Your task to perform on an android device: View the shopping cart on amazon. Add logitech g903 to the cart on amazon, then select checkout. Image 0: 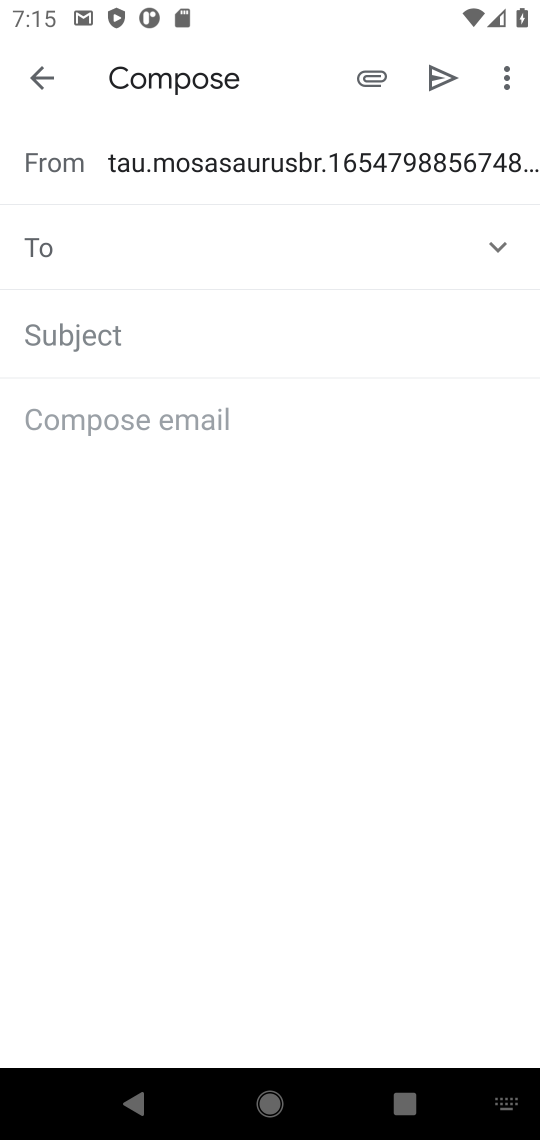
Step 0: press home button
Your task to perform on an android device: View the shopping cart on amazon. Add logitech g903 to the cart on amazon, then select checkout. Image 1: 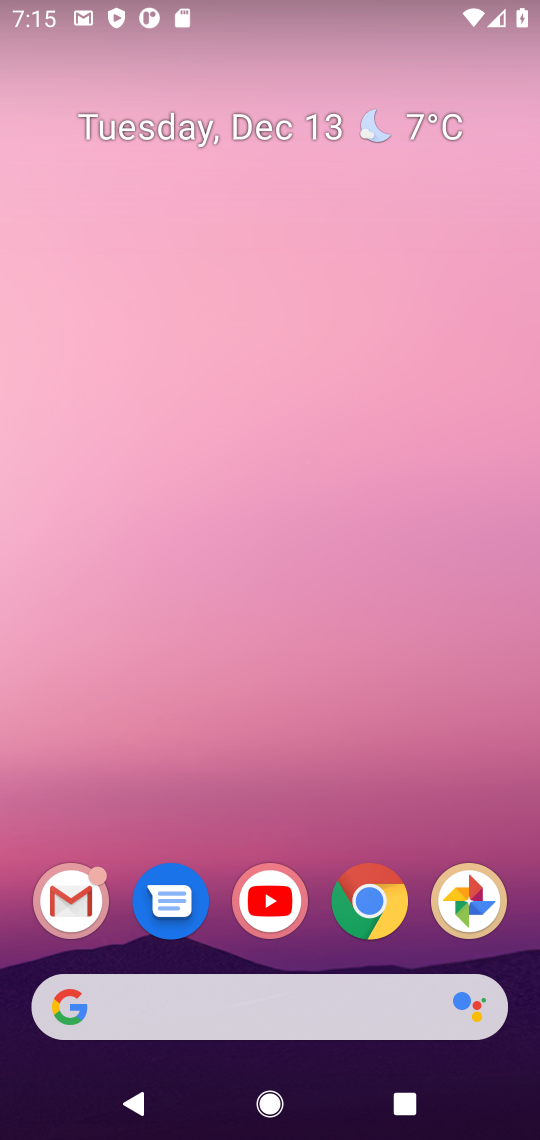
Step 1: click (357, 894)
Your task to perform on an android device: View the shopping cart on amazon. Add logitech g903 to the cart on amazon, then select checkout. Image 2: 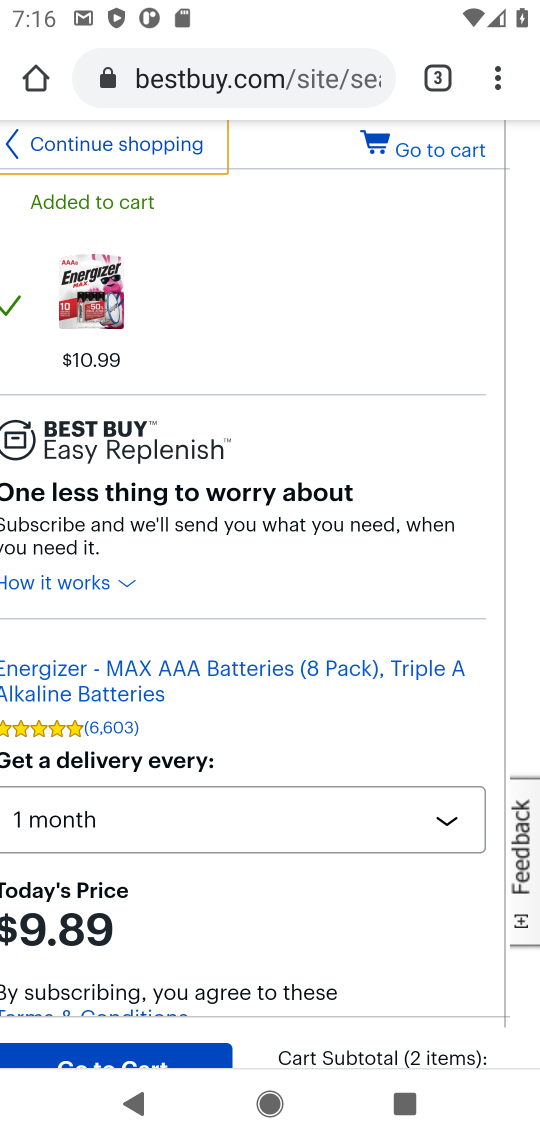
Step 2: click (433, 82)
Your task to perform on an android device: View the shopping cart on amazon. Add logitech g903 to the cart on amazon, then select checkout. Image 3: 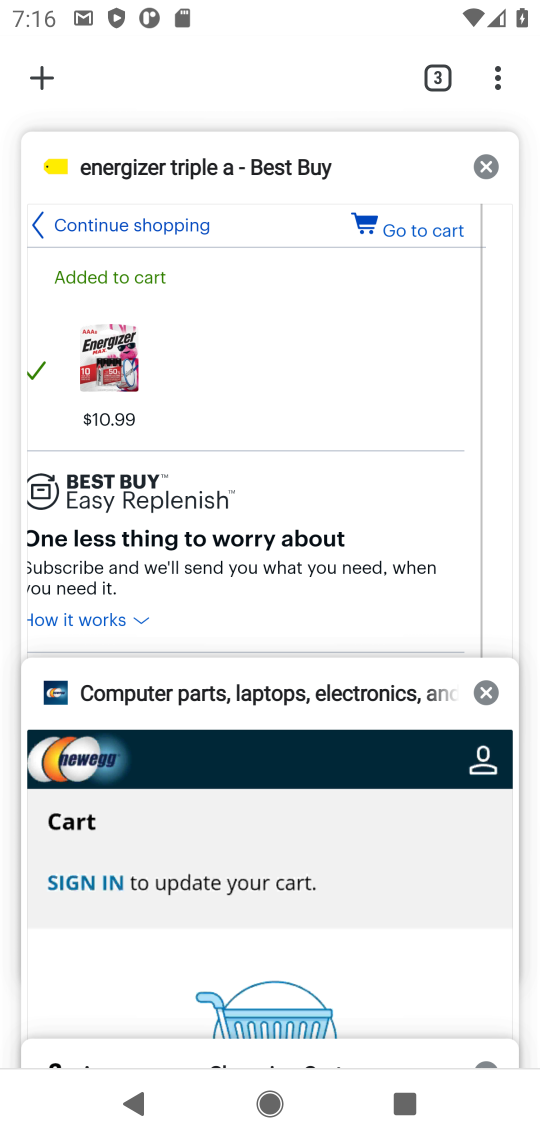
Step 3: click (36, 72)
Your task to perform on an android device: View the shopping cart on amazon. Add logitech g903 to the cart on amazon, then select checkout. Image 4: 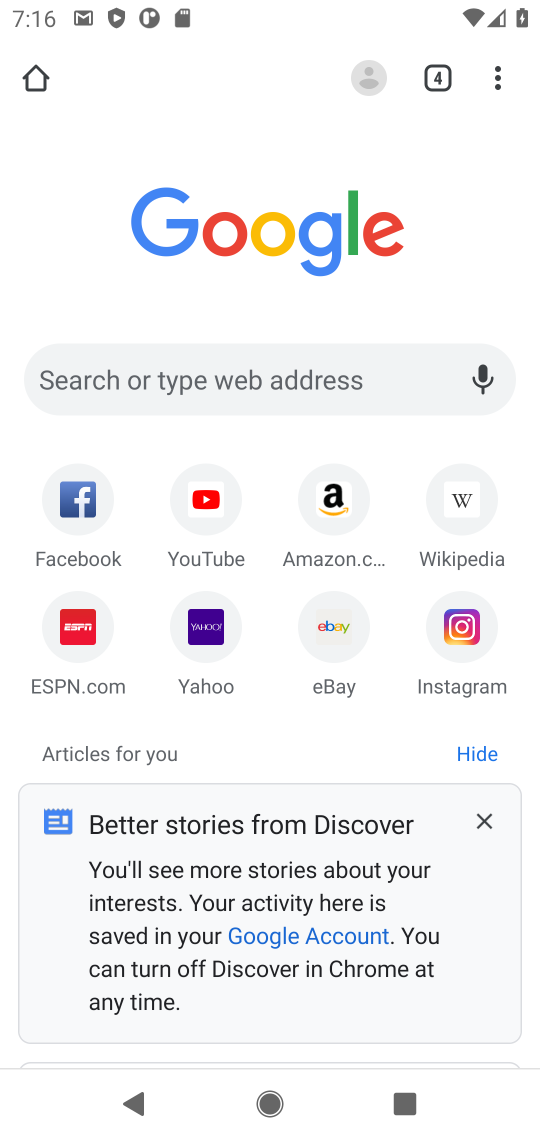
Step 4: click (443, 78)
Your task to perform on an android device: View the shopping cart on amazon. Add logitech g903 to the cart on amazon, then select checkout. Image 5: 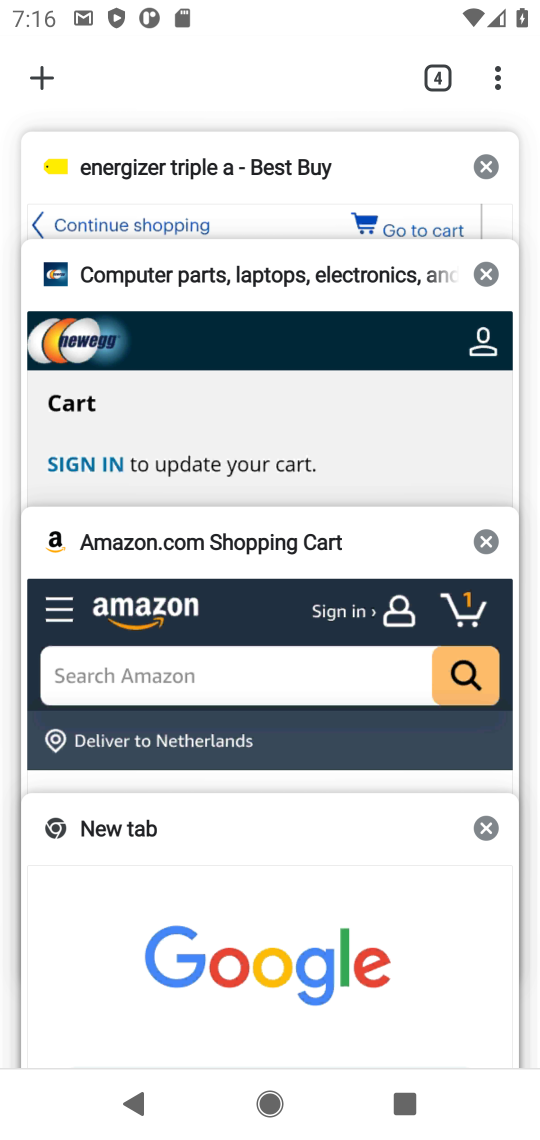
Step 5: click (292, 568)
Your task to perform on an android device: View the shopping cart on amazon. Add logitech g903 to the cart on amazon, then select checkout. Image 6: 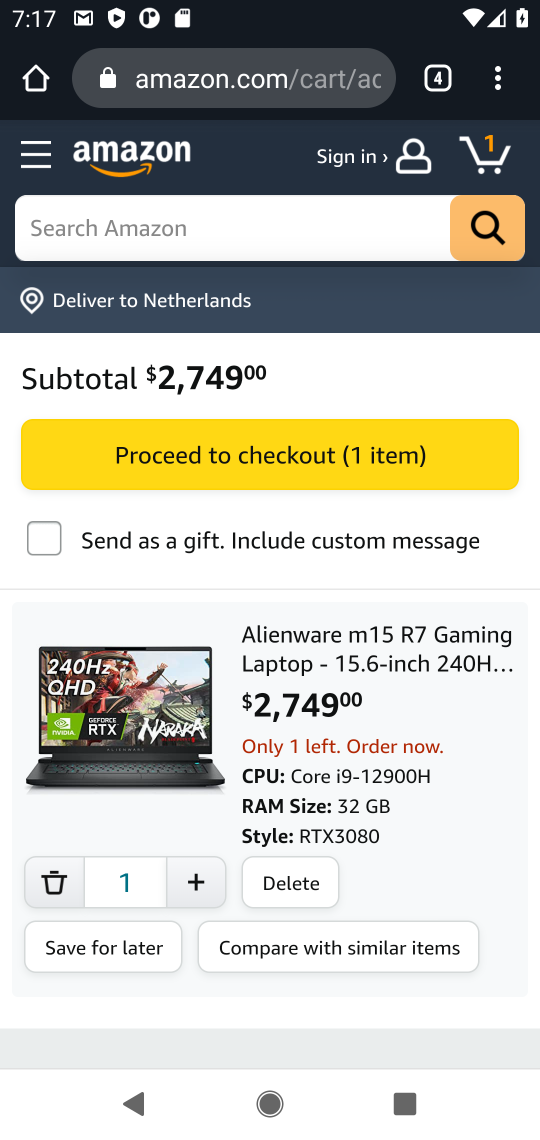
Step 6: click (154, 223)
Your task to perform on an android device: View the shopping cart on amazon. Add logitech g903 to the cart on amazon, then select checkout. Image 7: 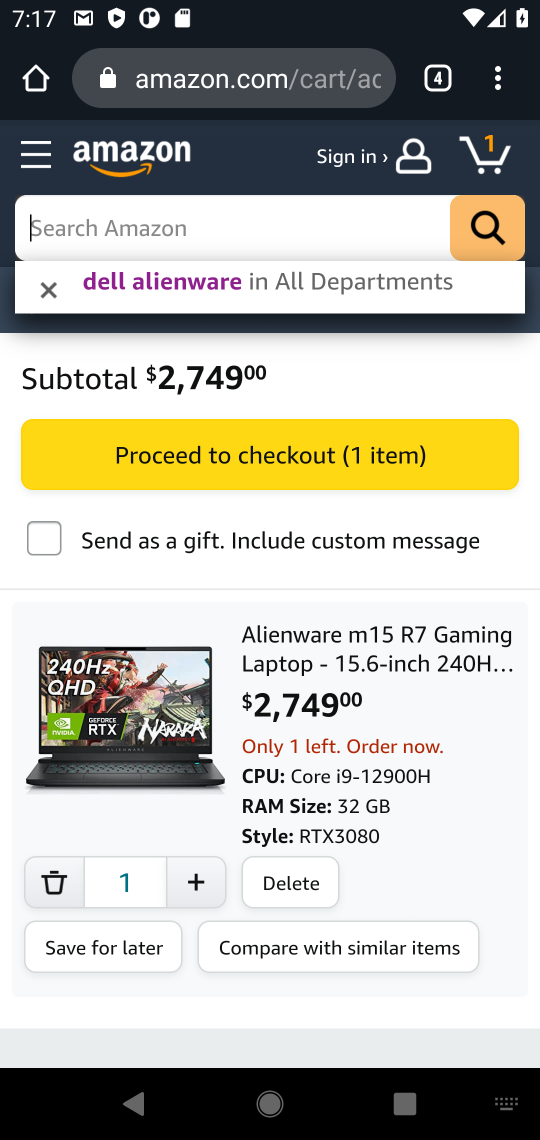
Step 7: type "logitech g903"
Your task to perform on an android device: View the shopping cart on amazon. Add logitech g903 to the cart on amazon, then select checkout. Image 8: 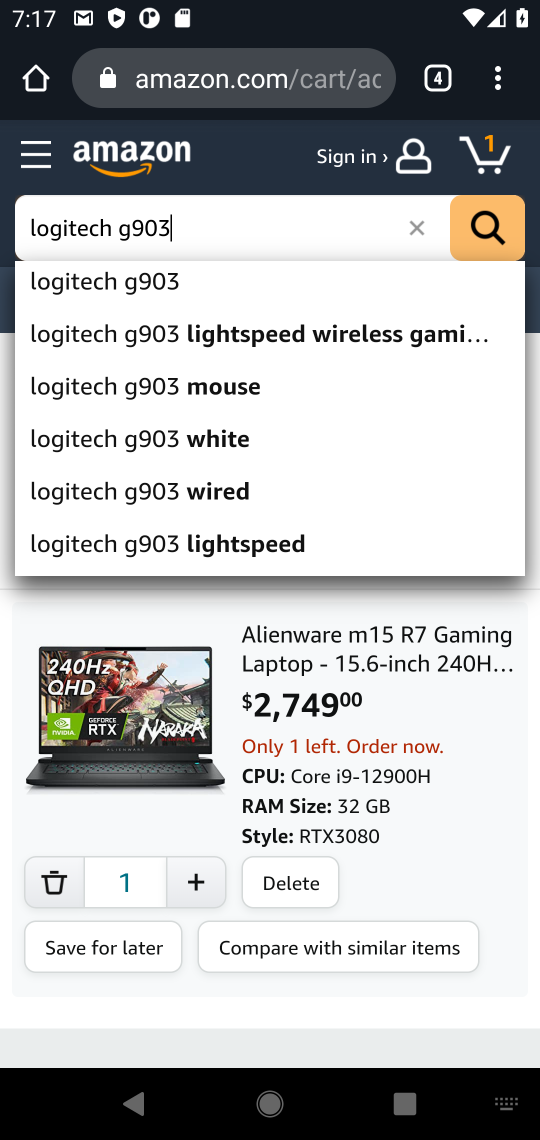
Step 8: click (75, 280)
Your task to perform on an android device: View the shopping cart on amazon. Add logitech g903 to the cart on amazon, then select checkout. Image 9: 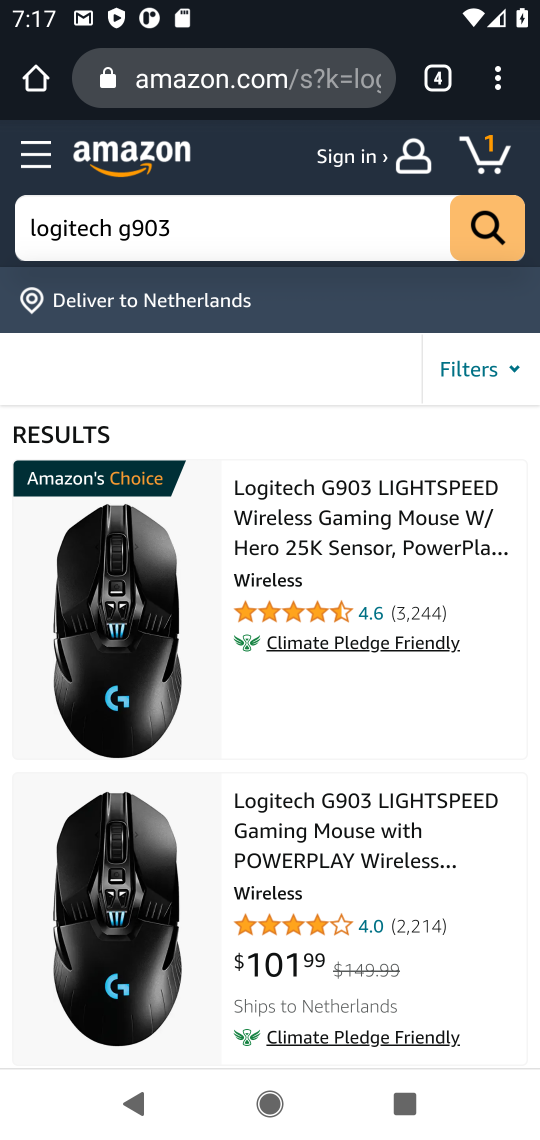
Step 9: click (292, 539)
Your task to perform on an android device: View the shopping cart on amazon. Add logitech g903 to the cart on amazon, then select checkout. Image 10: 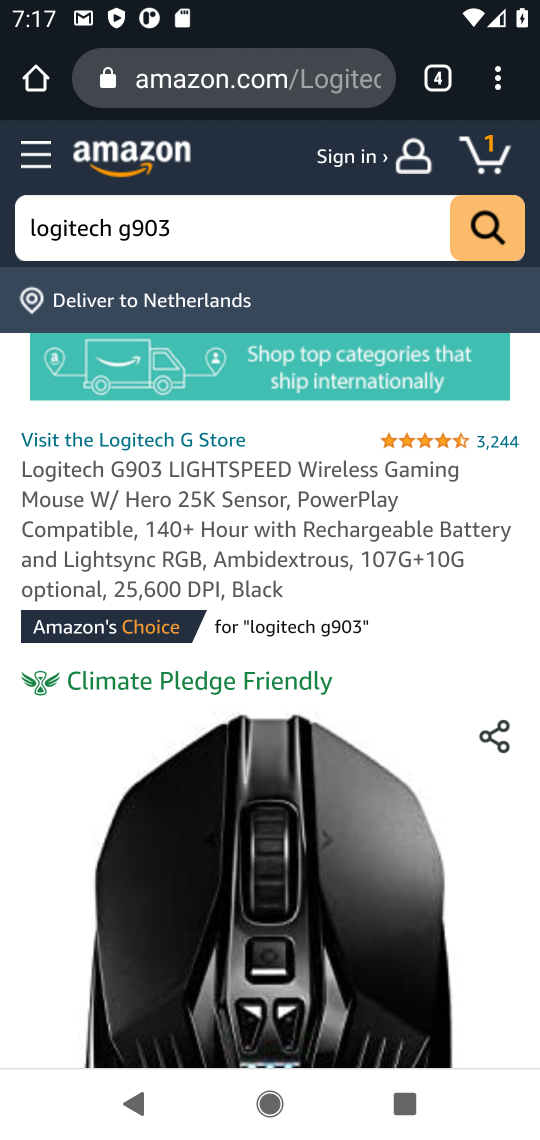
Step 10: drag from (414, 712) to (505, 249)
Your task to perform on an android device: View the shopping cart on amazon. Add logitech g903 to the cart on amazon, then select checkout. Image 11: 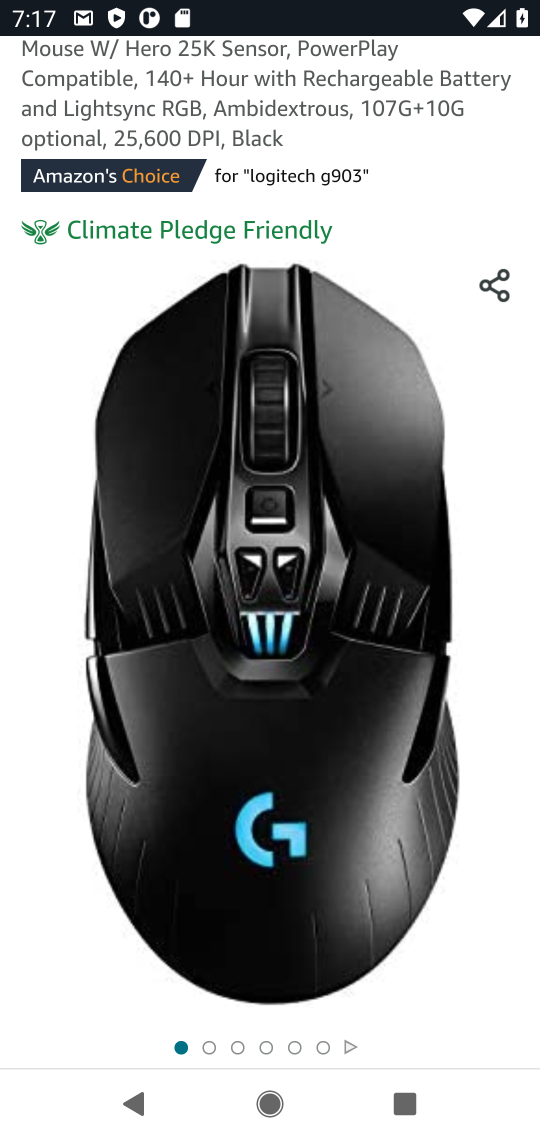
Step 11: drag from (459, 928) to (465, 262)
Your task to perform on an android device: View the shopping cart on amazon. Add logitech g903 to the cart on amazon, then select checkout. Image 12: 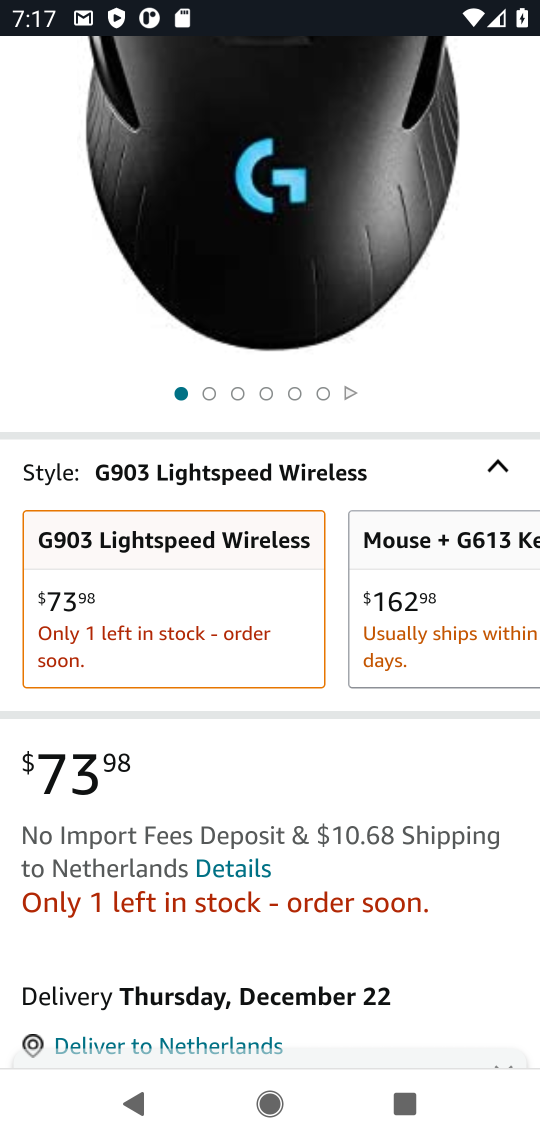
Step 12: drag from (260, 814) to (384, 412)
Your task to perform on an android device: View the shopping cart on amazon. Add logitech g903 to the cart on amazon, then select checkout. Image 13: 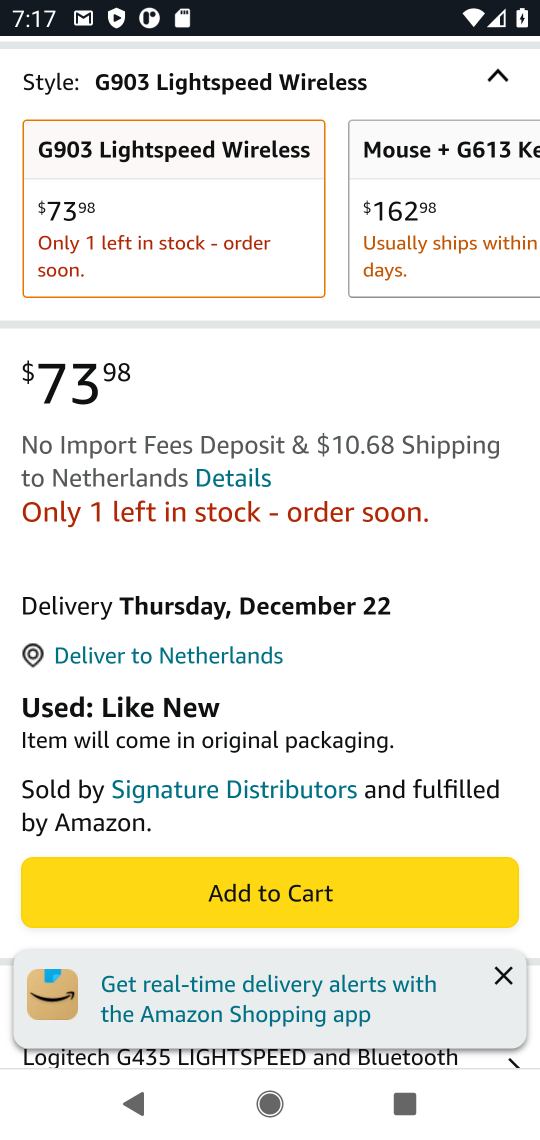
Step 13: click (295, 906)
Your task to perform on an android device: View the shopping cart on amazon. Add logitech g903 to the cart on amazon, then select checkout. Image 14: 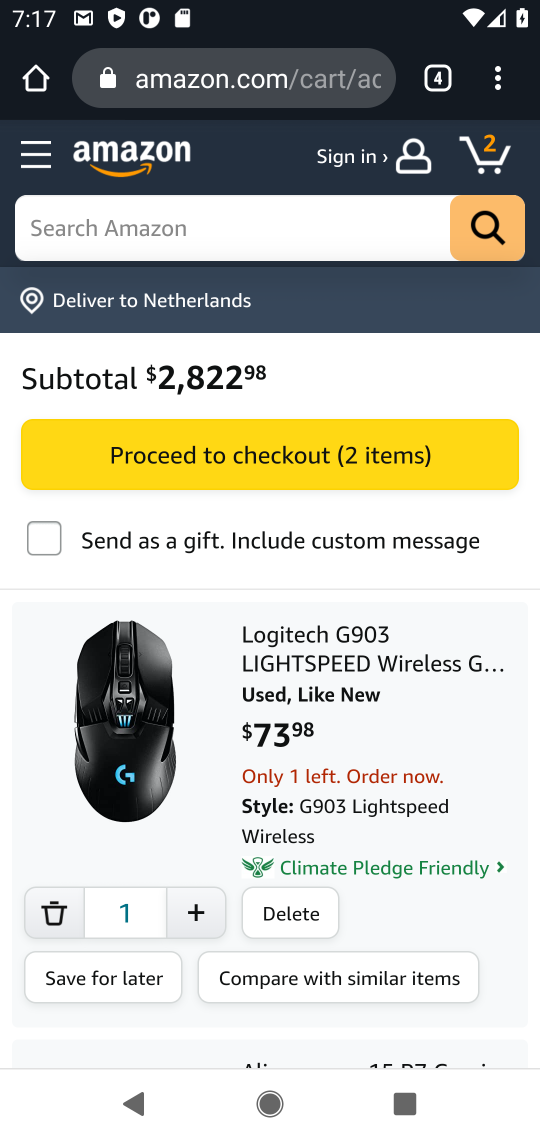
Step 14: click (357, 452)
Your task to perform on an android device: View the shopping cart on amazon. Add logitech g903 to the cart on amazon, then select checkout. Image 15: 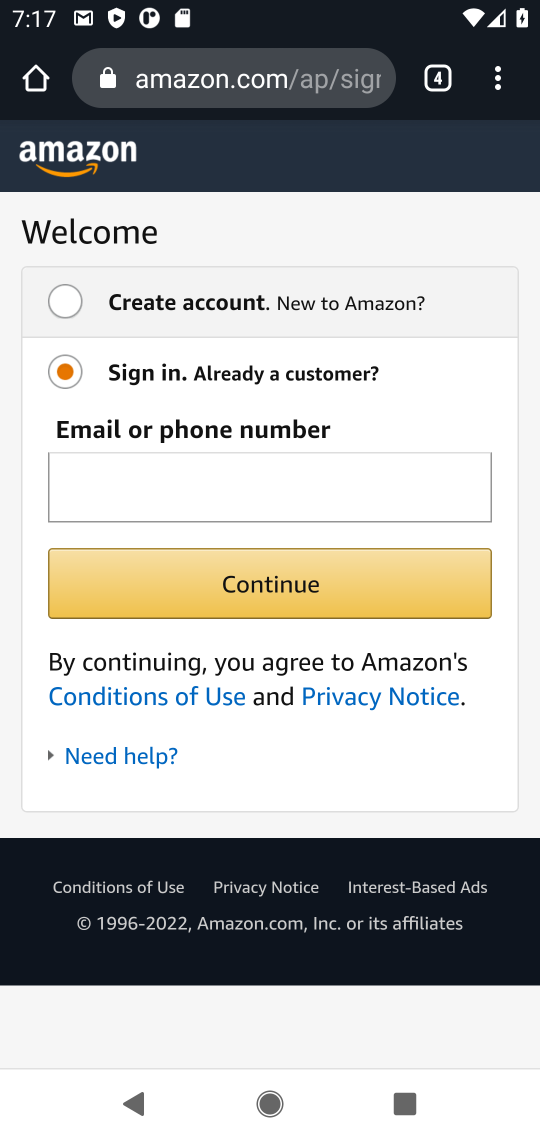
Step 15: task complete